Your task to perform on an android device: Open the stopwatch Image 0: 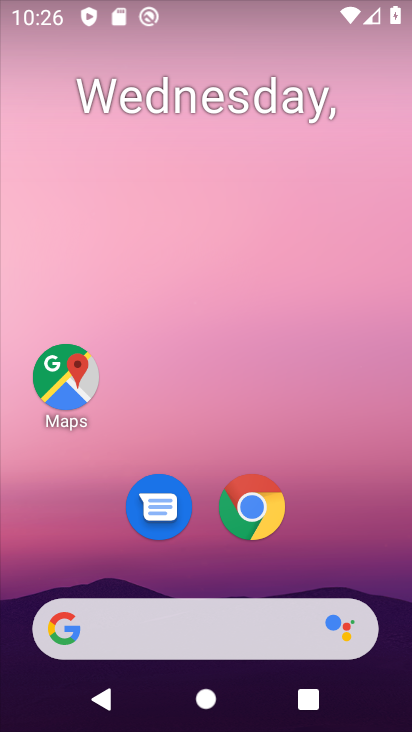
Step 0: drag from (268, 614) to (251, 149)
Your task to perform on an android device: Open the stopwatch Image 1: 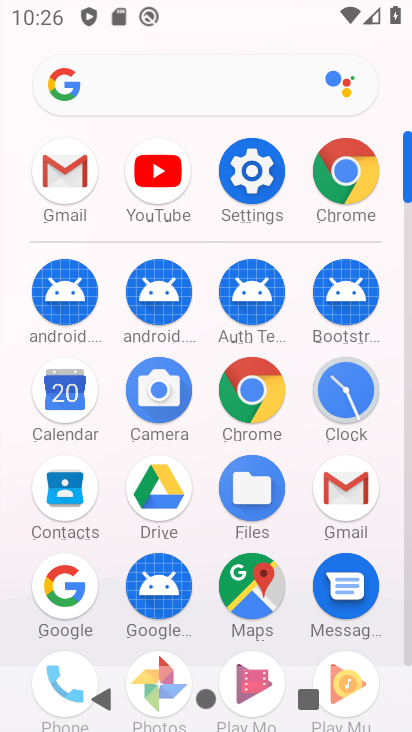
Step 1: click (351, 384)
Your task to perform on an android device: Open the stopwatch Image 2: 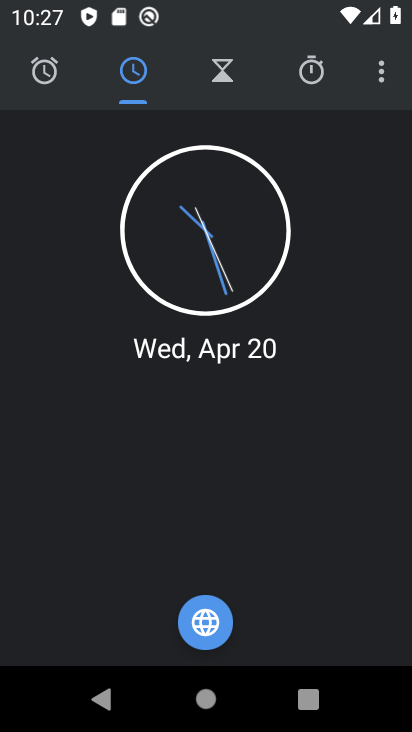
Step 2: click (322, 70)
Your task to perform on an android device: Open the stopwatch Image 3: 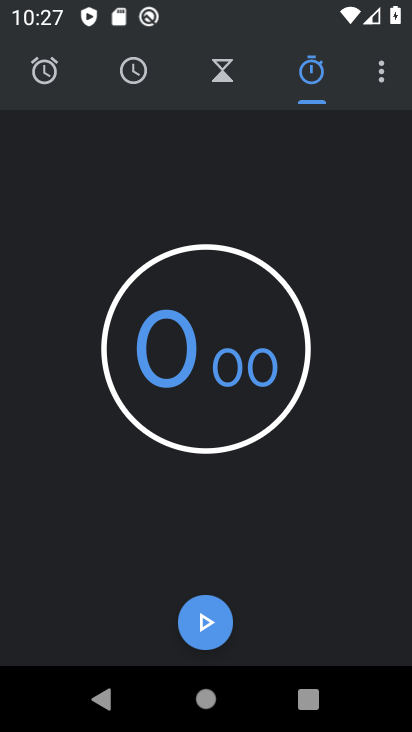
Step 3: task complete